Your task to perform on an android device: search for console tables on article.com Image 0: 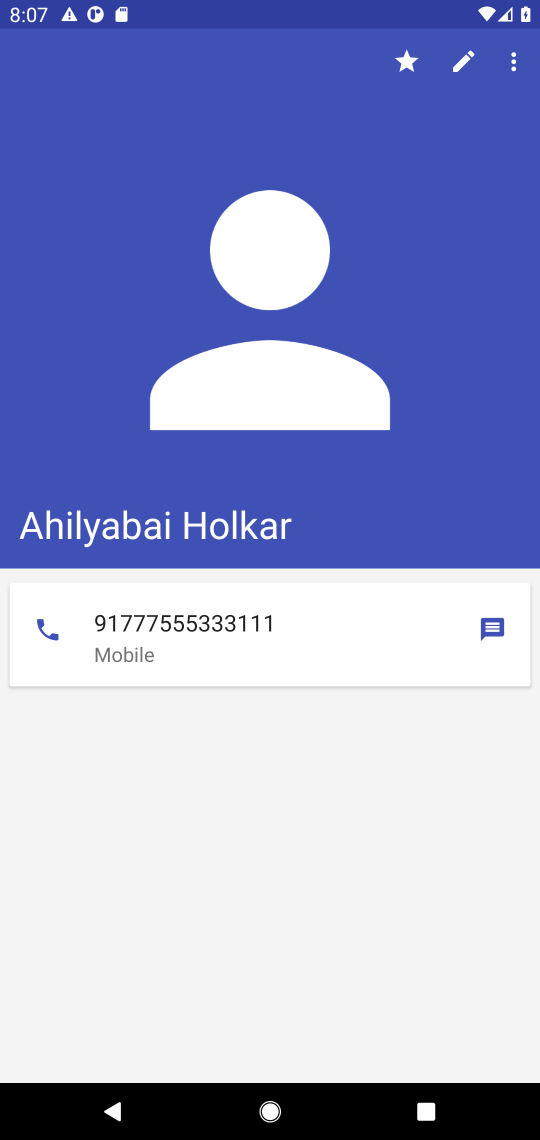
Step 0: task complete